Your task to perform on an android device: turn on showing notifications on the lock screen Image 0: 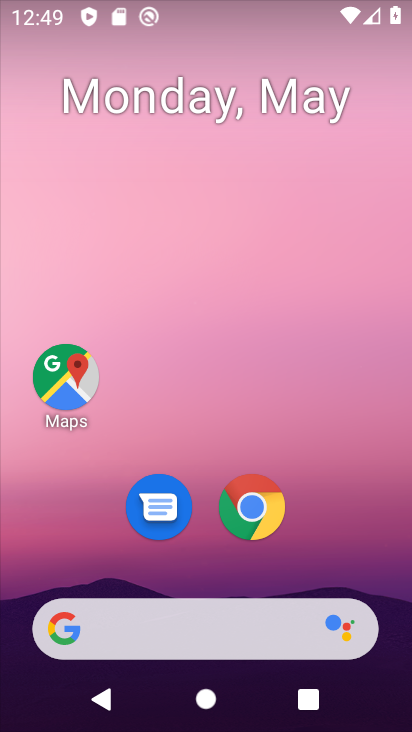
Step 0: drag from (333, 507) to (314, 101)
Your task to perform on an android device: turn on showing notifications on the lock screen Image 1: 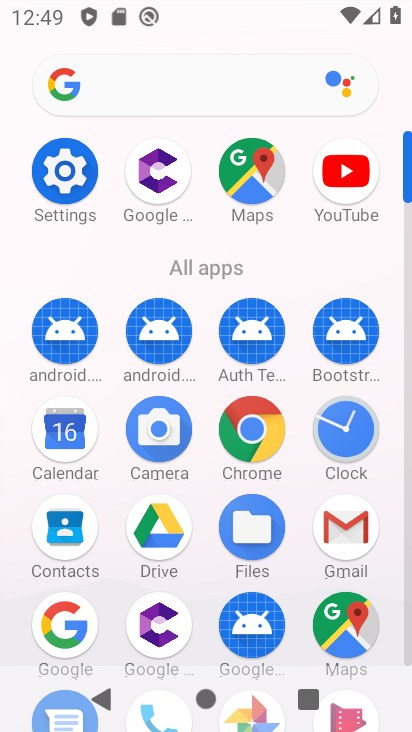
Step 1: click (57, 164)
Your task to perform on an android device: turn on showing notifications on the lock screen Image 2: 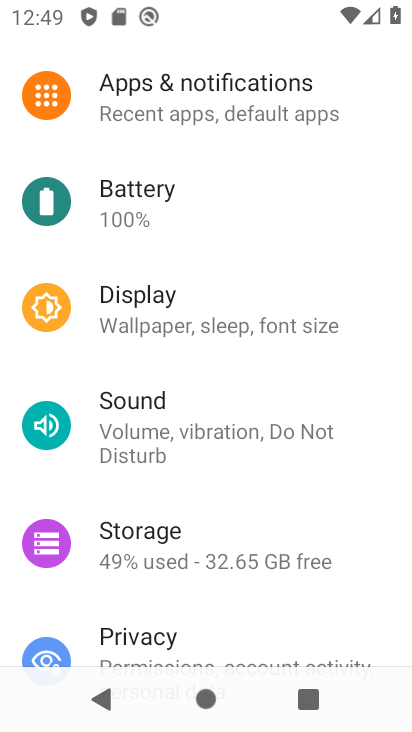
Step 2: drag from (240, 588) to (245, 187)
Your task to perform on an android device: turn on showing notifications on the lock screen Image 3: 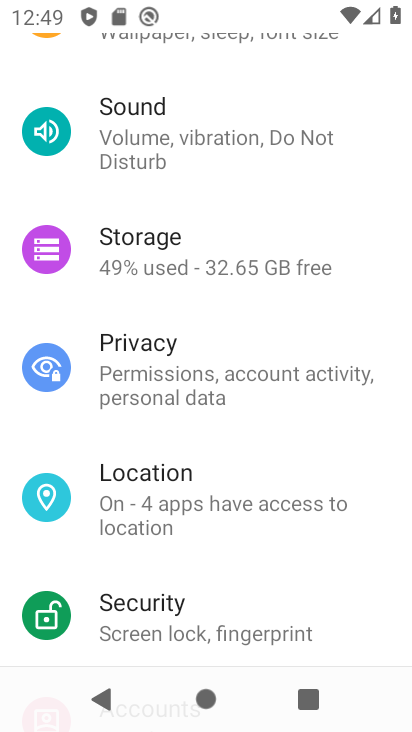
Step 3: drag from (181, 590) to (238, 225)
Your task to perform on an android device: turn on showing notifications on the lock screen Image 4: 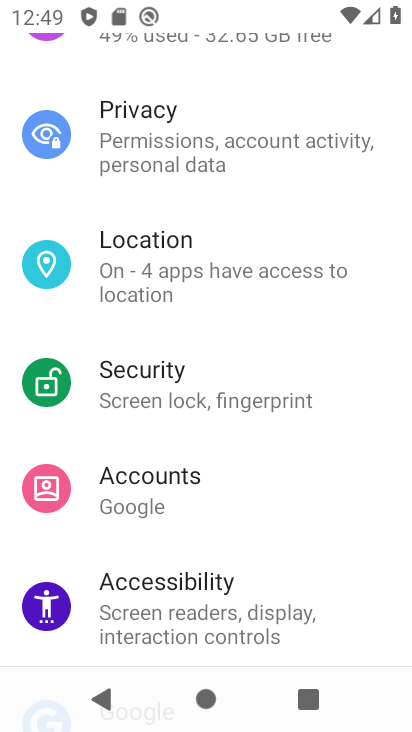
Step 4: drag from (205, 560) to (285, 723)
Your task to perform on an android device: turn on showing notifications on the lock screen Image 5: 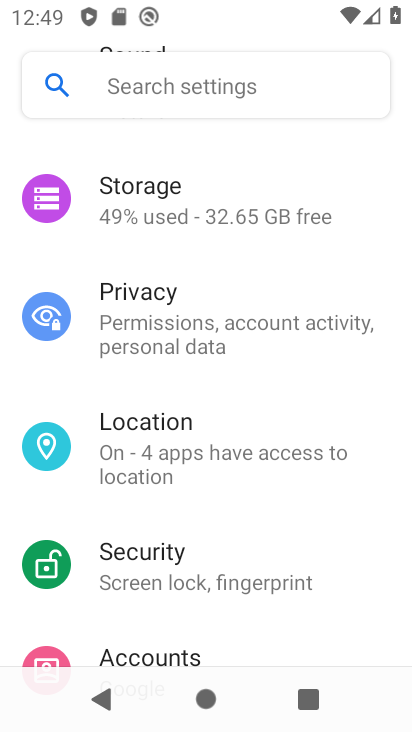
Step 5: drag from (256, 234) to (284, 711)
Your task to perform on an android device: turn on showing notifications on the lock screen Image 6: 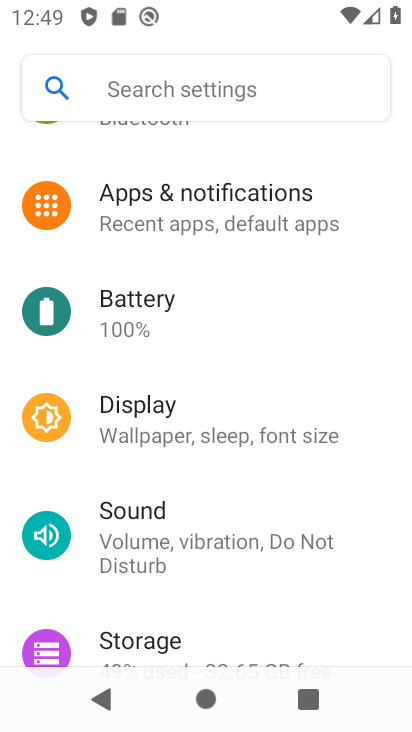
Step 6: click (229, 210)
Your task to perform on an android device: turn on showing notifications on the lock screen Image 7: 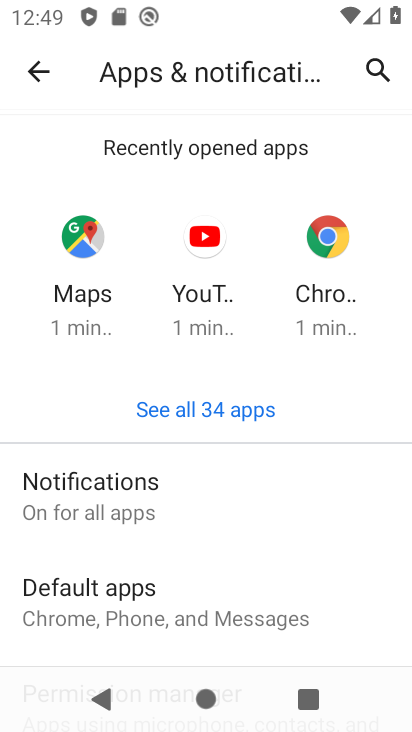
Step 7: drag from (278, 512) to (262, 13)
Your task to perform on an android device: turn on showing notifications on the lock screen Image 8: 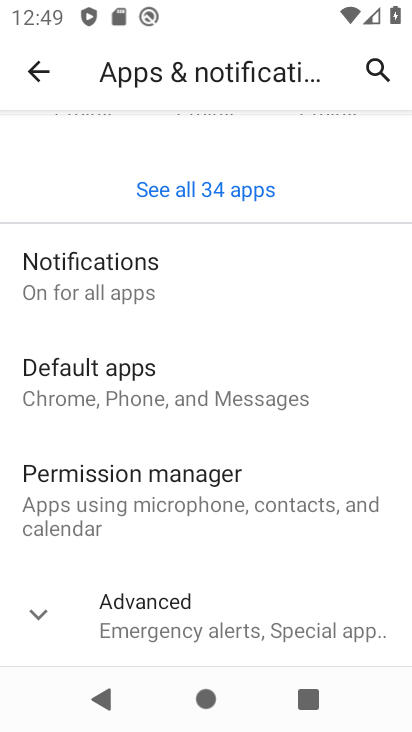
Step 8: click (189, 618)
Your task to perform on an android device: turn on showing notifications on the lock screen Image 9: 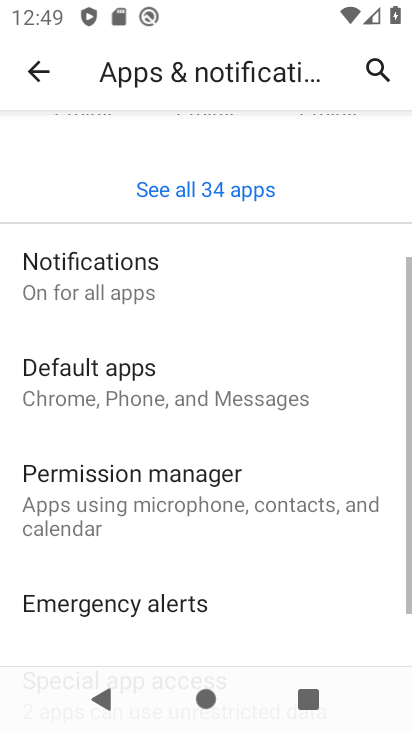
Step 9: drag from (237, 565) to (278, 99)
Your task to perform on an android device: turn on showing notifications on the lock screen Image 10: 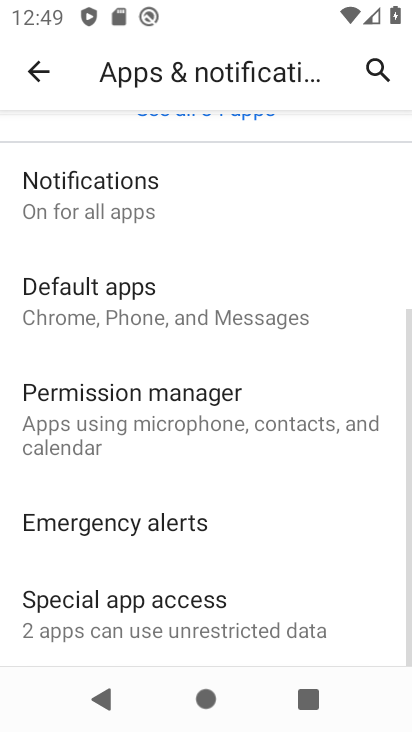
Step 10: click (202, 190)
Your task to perform on an android device: turn on showing notifications on the lock screen Image 11: 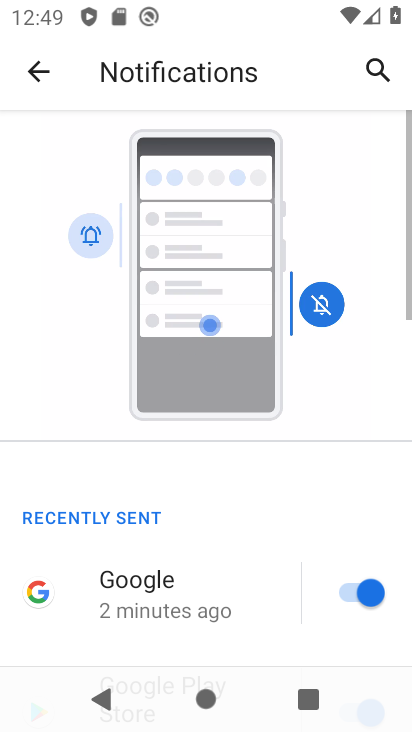
Step 11: drag from (177, 559) to (251, 0)
Your task to perform on an android device: turn on showing notifications on the lock screen Image 12: 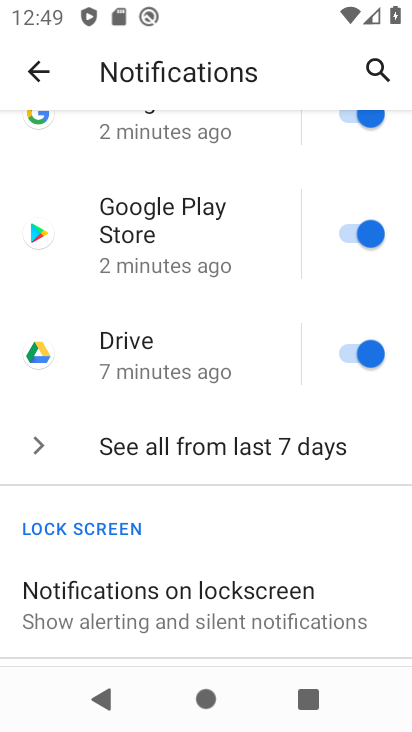
Step 12: click (203, 598)
Your task to perform on an android device: turn on showing notifications on the lock screen Image 13: 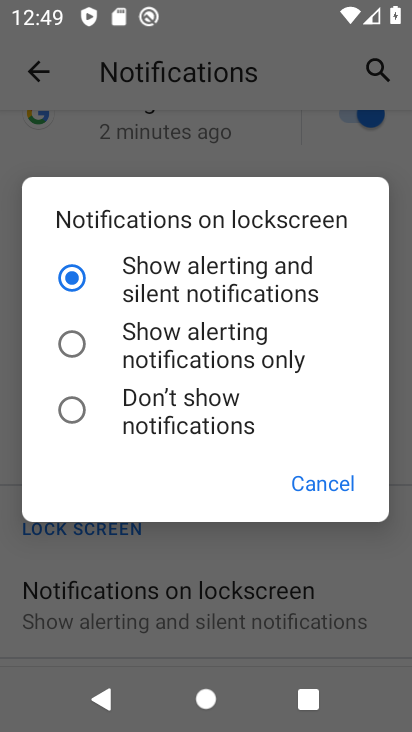
Step 13: click (189, 364)
Your task to perform on an android device: turn on showing notifications on the lock screen Image 14: 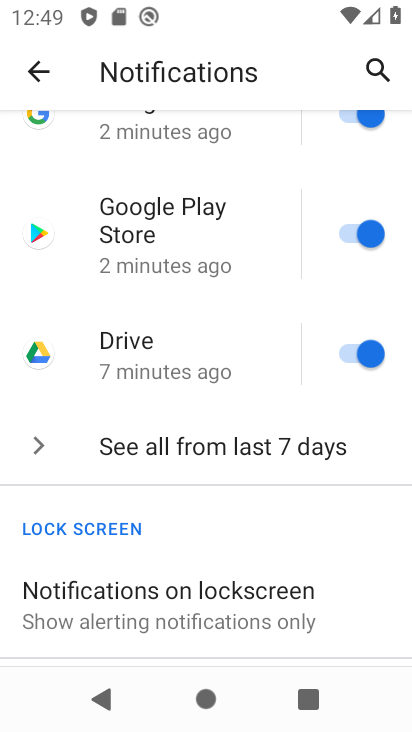
Step 14: task complete